Your task to perform on an android device: Go to Google maps Image 0: 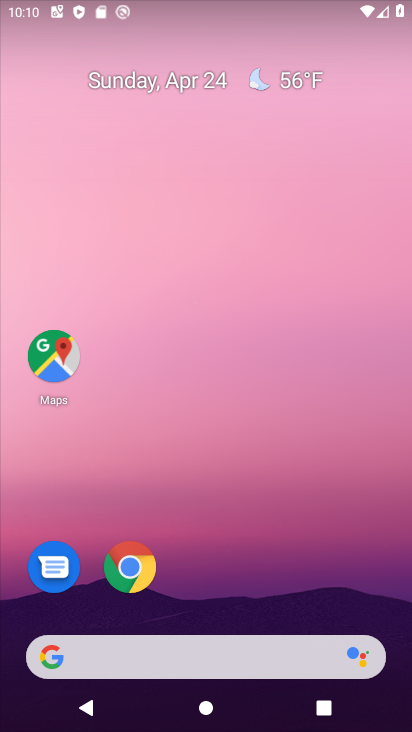
Step 0: click (403, 548)
Your task to perform on an android device: Go to Google maps Image 1: 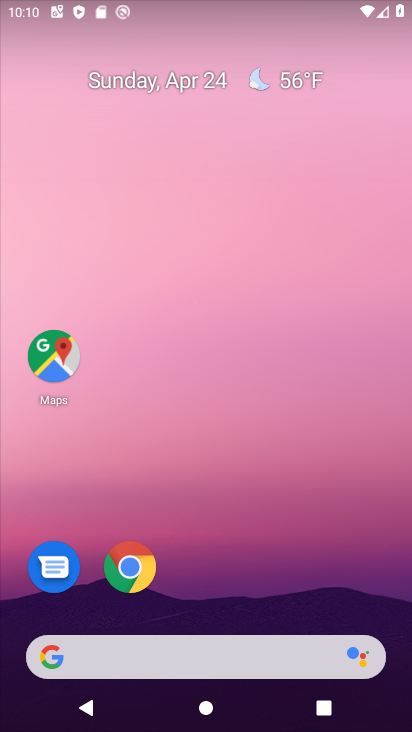
Step 1: drag from (160, 662) to (340, 13)
Your task to perform on an android device: Go to Google maps Image 2: 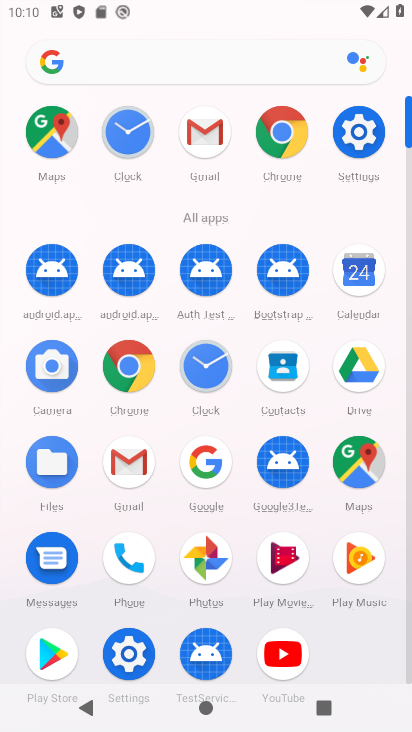
Step 2: click (60, 146)
Your task to perform on an android device: Go to Google maps Image 3: 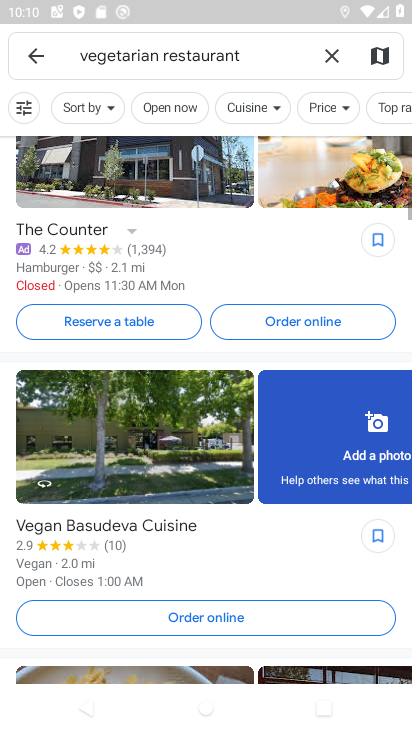
Step 3: click (40, 56)
Your task to perform on an android device: Go to Google maps Image 4: 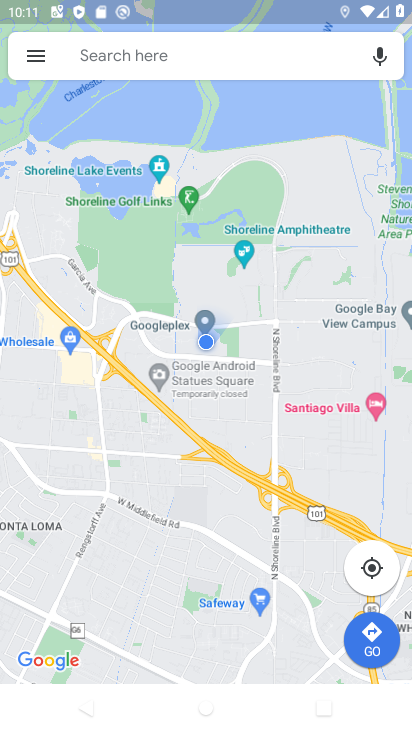
Step 4: task complete